Your task to perform on an android device: turn notification dots off Image 0: 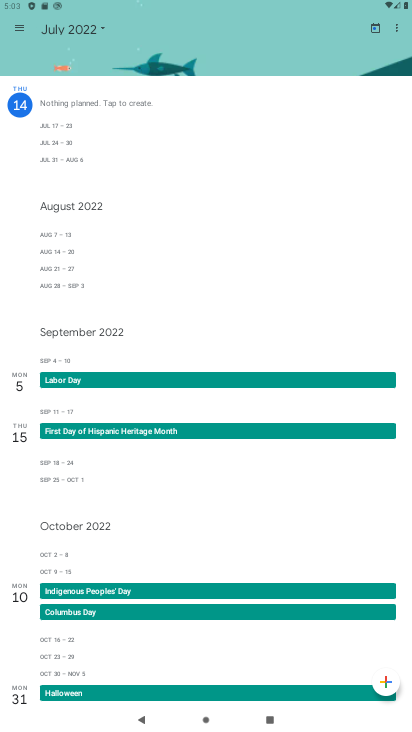
Step 0: press back button
Your task to perform on an android device: turn notification dots off Image 1: 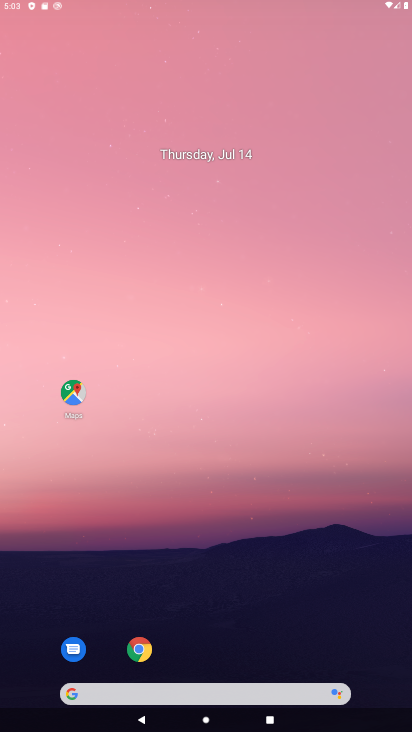
Step 1: drag from (189, 639) to (287, 20)
Your task to perform on an android device: turn notification dots off Image 2: 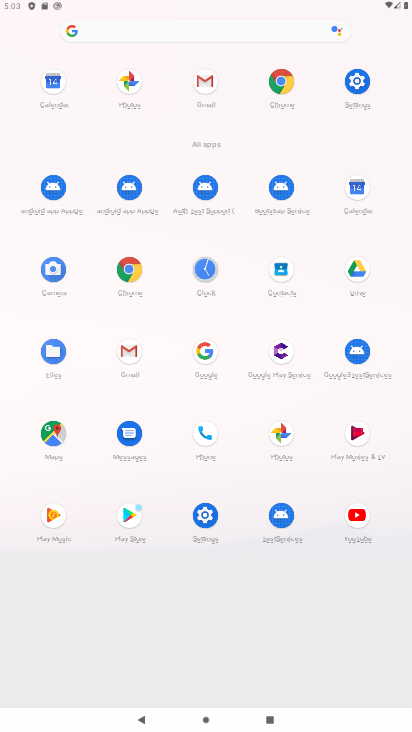
Step 2: click (363, 83)
Your task to perform on an android device: turn notification dots off Image 3: 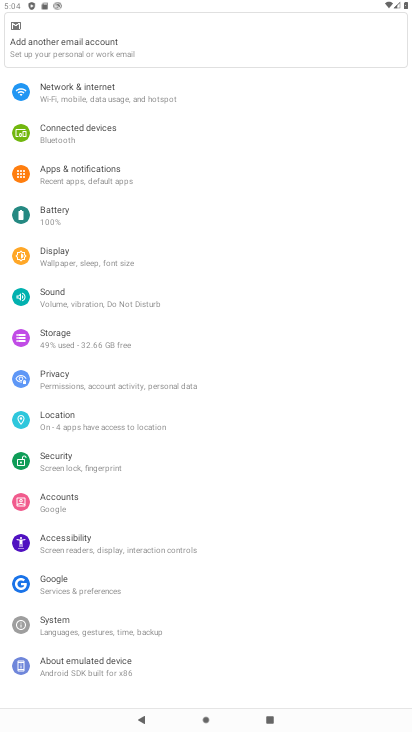
Step 3: drag from (230, 86) to (222, 633)
Your task to perform on an android device: turn notification dots off Image 4: 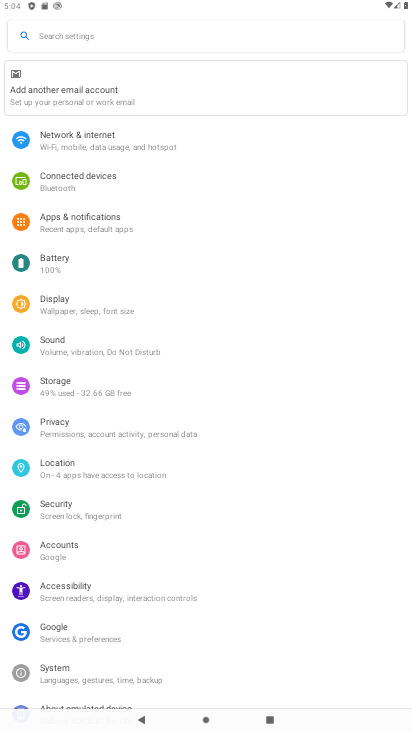
Step 4: click (99, 216)
Your task to perform on an android device: turn notification dots off Image 5: 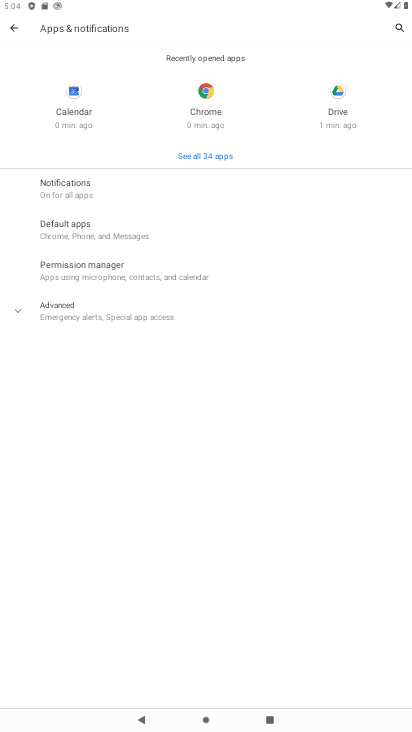
Step 5: click (108, 191)
Your task to perform on an android device: turn notification dots off Image 6: 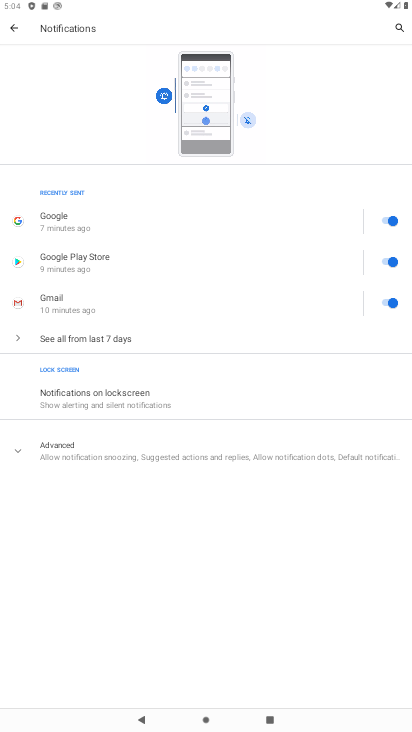
Step 6: click (137, 447)
Your task to perform on an android device: turn notification dots off Image 7: 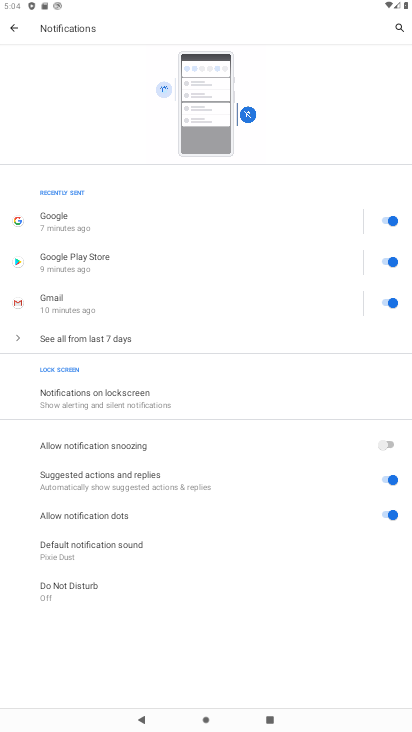
Step 7: click (398, 517)
Your task to perform on an android device: turn notification dots off Image 8: 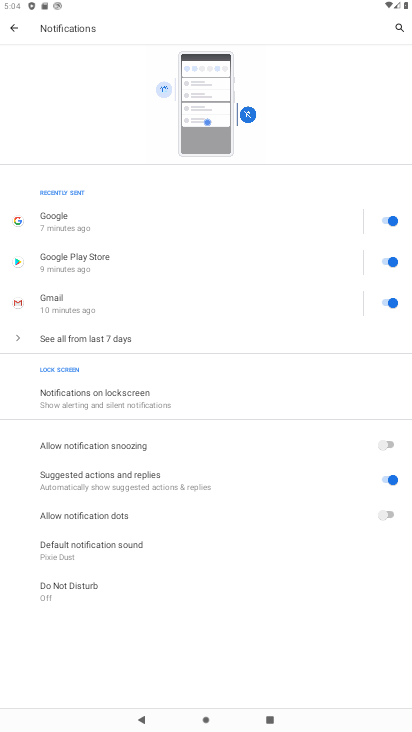
Step 8: task complete